Your task to perform on an android device: move a message to another label in the gmail app Image 0: 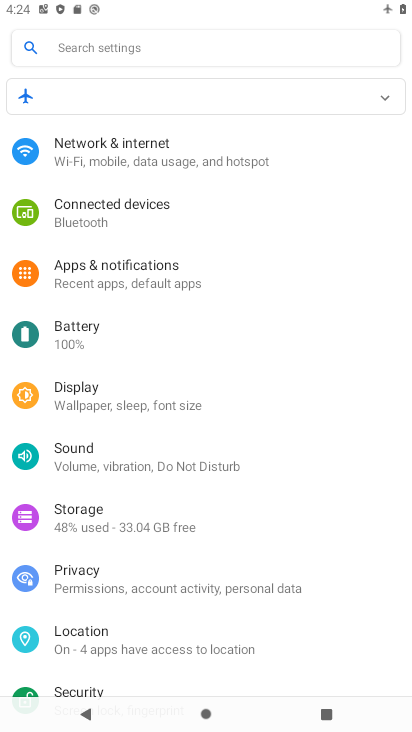
Step 0: press home button
Your task to perform on an android device: move a message to another label in the gmail app Image 1: 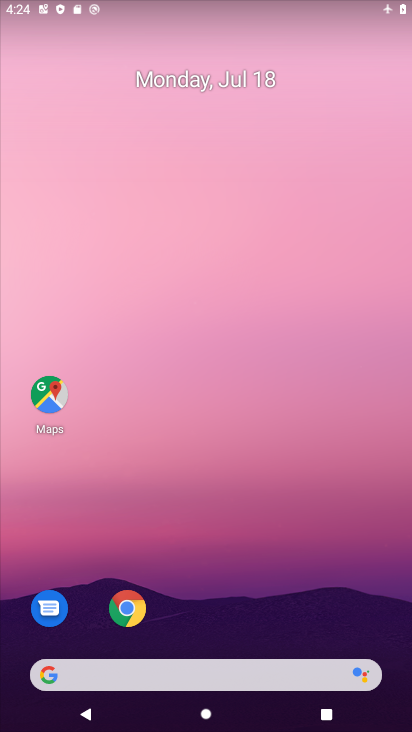
Step 1: drag from (231, 593) to (222, 68)
Your task to perform on an android device: move a message to another label in the gmail app Image 2: 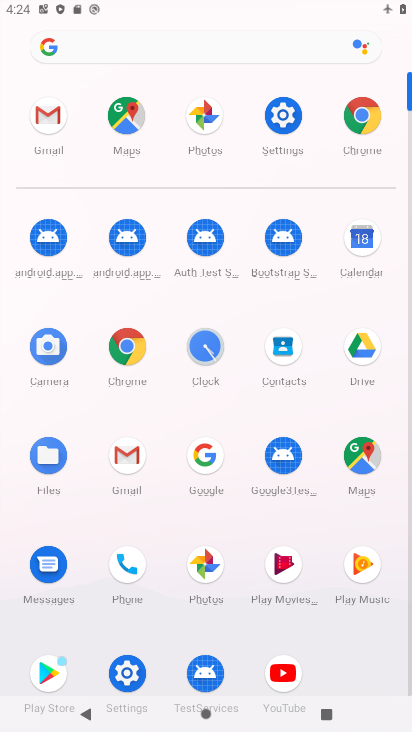
Step 2: click (43, 112)
Your task to perform on an android device: move a message to another label in the gmail app Image 3: 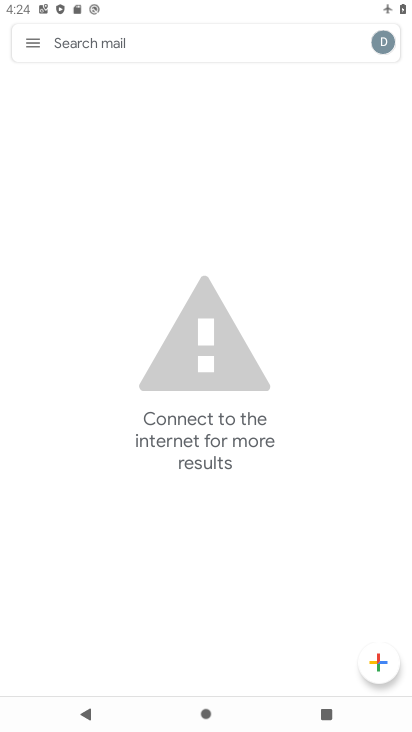
Step 3: click (35, 45)
Your task to perform on an android device: move a message to another label in the gmail app Image 4: 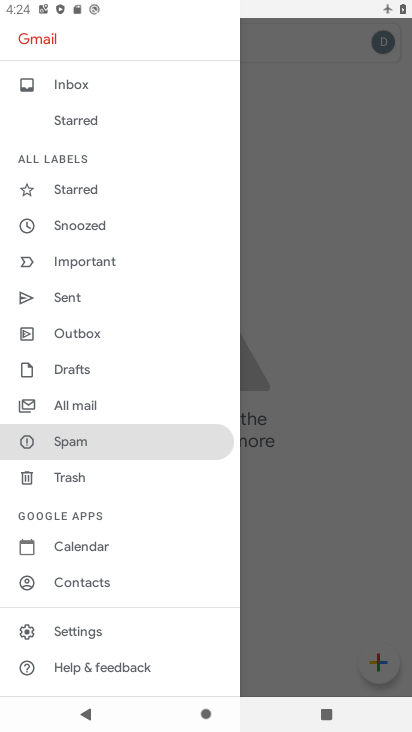
Step 4: click (109, 406)
Your task to perform on an android device: move a message to another label in the gmail app Image 5: 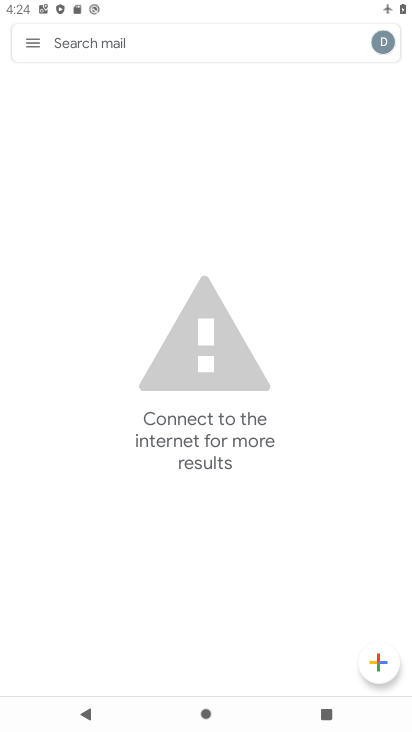
Step 5: task complete